Your task to perform on an android device: Open calendar and show me the fourth week of next month Image 0: 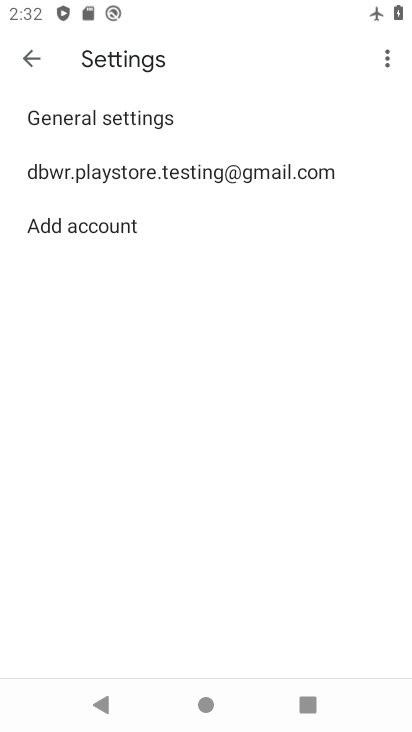
Step 0: press home button
Your task to perform on an android device: Open calendar and show me the fourth week of next month Image 1: 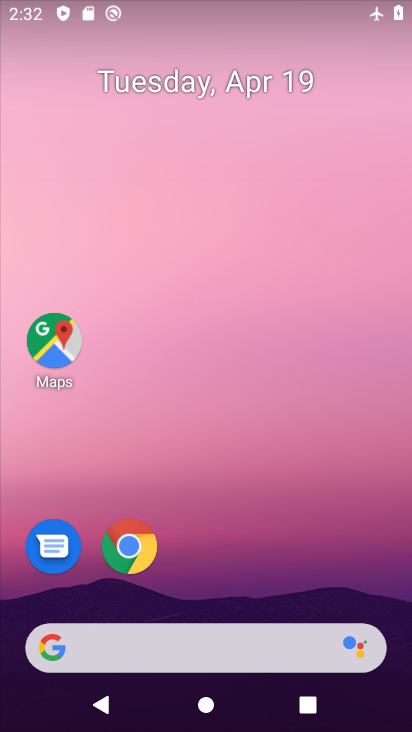
Step 1: drag from (210, 636) to (218, 185)
Your task to perform on an android device: Open calendar and show me the fourth week of next month Image 2: 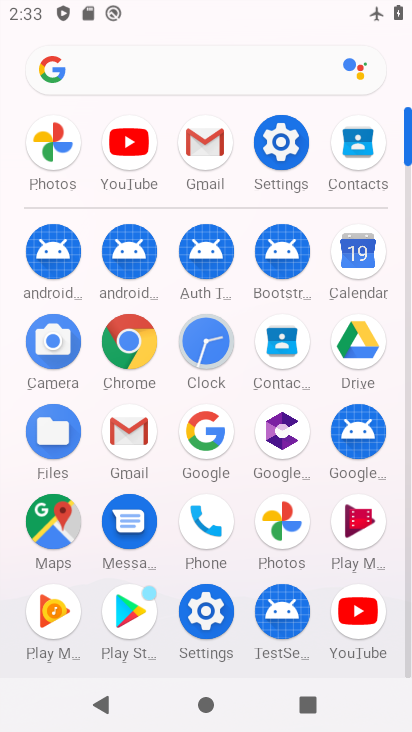
Step 2: click (354, 260)
Your task to perform on an android device: Open calendar and show me the fourth week of next month Image 3: 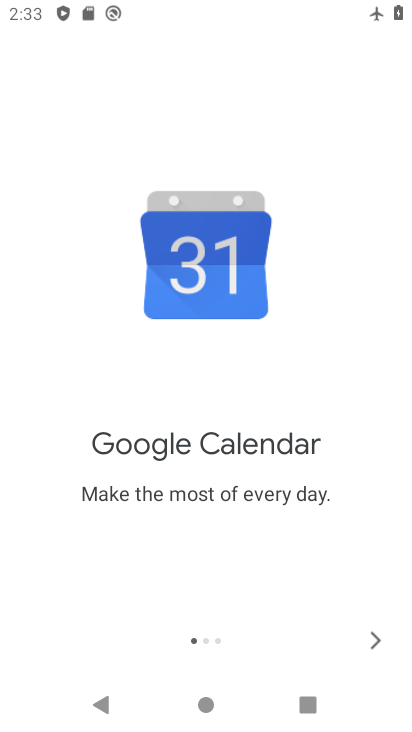
Step 3: click (358, 635)
Your task to perform on an android device: Open calendar and show me the fourth week of next month Image 4: 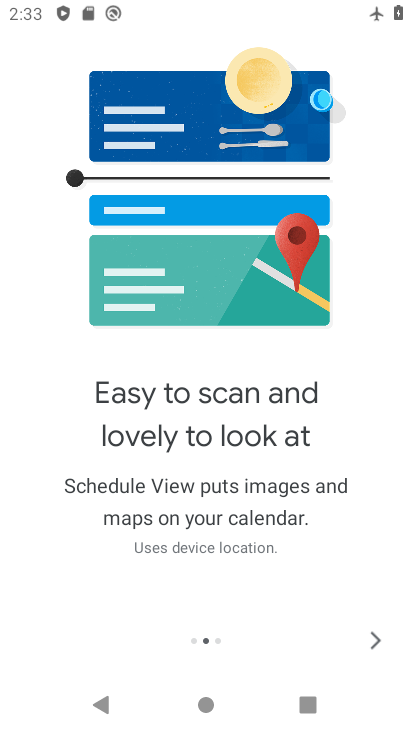
Step 4: click (358, 635)
Your task to perform on an android device: Open calendar and show me the fourth week of next month Image 5: 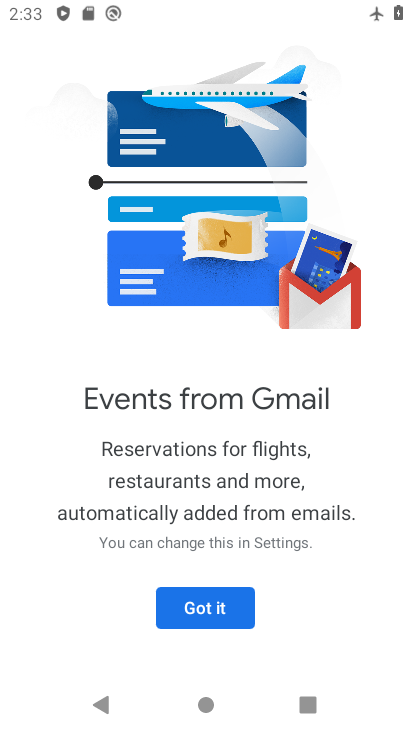
Step 5: click (227, 615)
Your task to perform on an android device: Open calendar and show me the fourth week of next month Image 6: 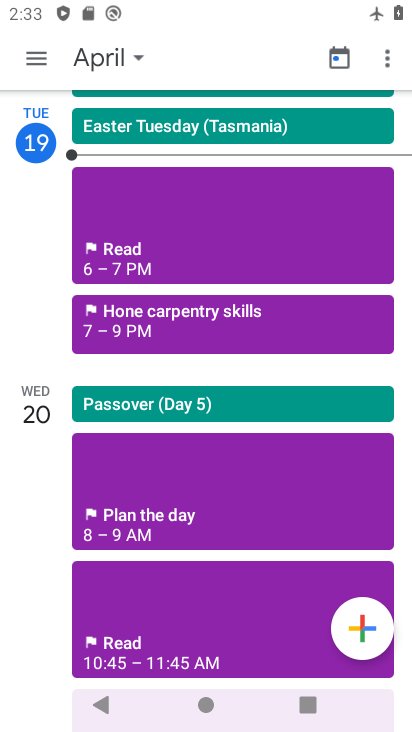
Step 6: click (51, 52)
Your task to perform on an android device: Open calendar and show me the fourth week of next month Image 7: 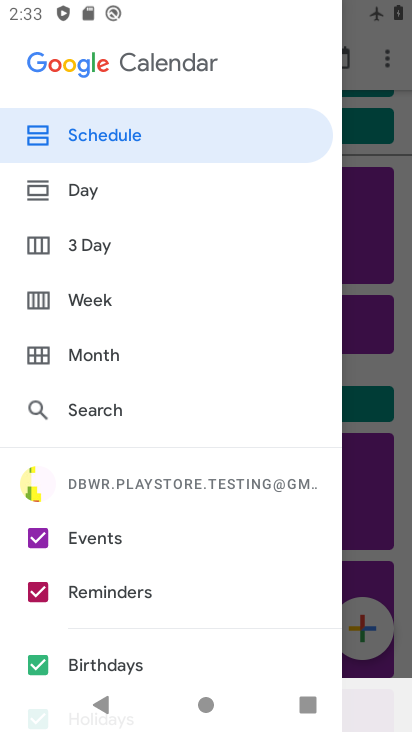
Step 7: click (87, 355)
Your task to perform on an android device: Open calendar and show me the fourth week of next month Image 8: 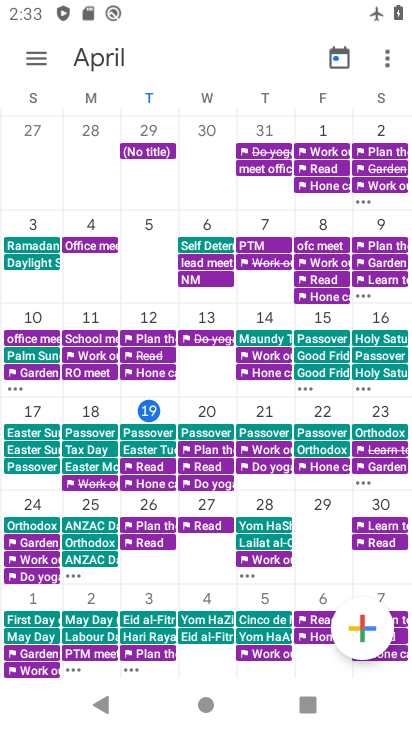
Step 8: task complete